Your task to perform on an android device: add a contact in the contacts app Image 0: 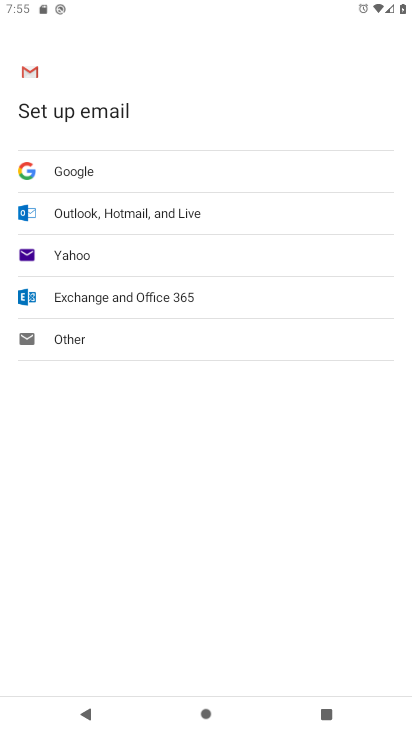
Step 0: press home button
Your task to perform on an android device: add a contact in the contacts app Image 1: 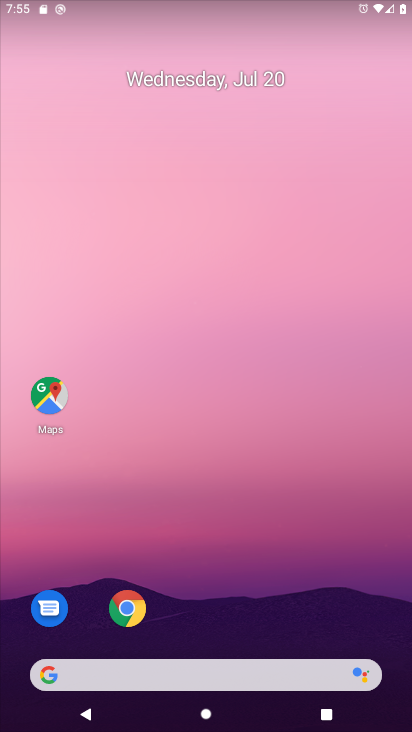
Step 1: drag from (214, 656) to (261, 274)
Your task to perform on an android device: add a contact in the contacts app Image 2: 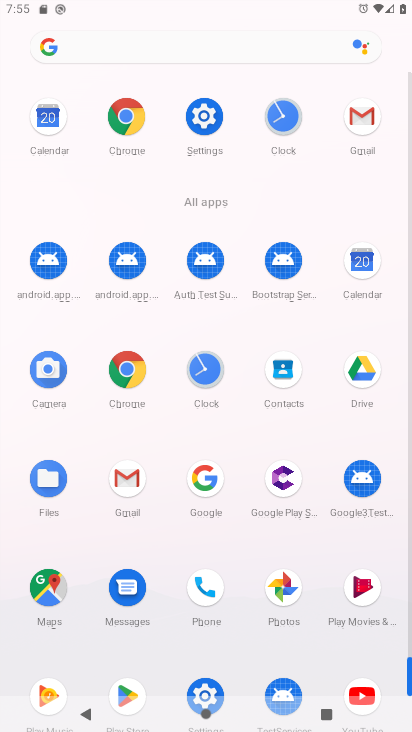
Step 2: click (203, 583)
Your task to perform on an android device: add a contact in the contacts app Image 3: 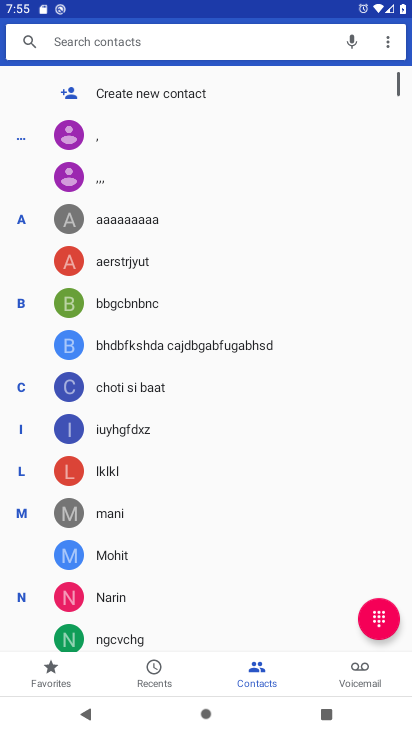
Step 3: click (173, 94)
Your task to perform on an android device: add a contact in the contacts app Image 4: 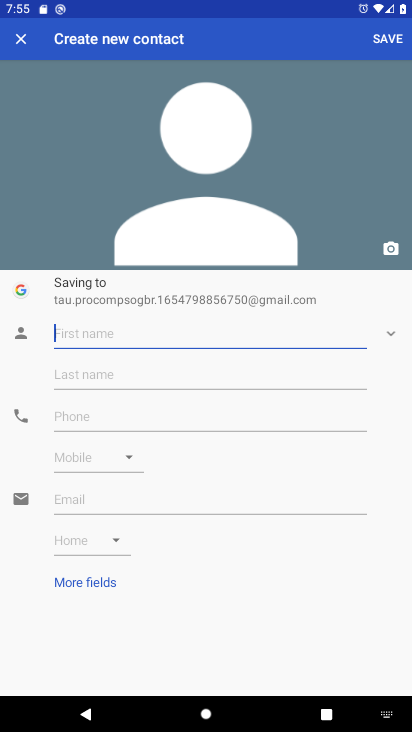
Step 4: click (145, 313)
Your task to perform on an android device: add a contact in the contacts app Image 5: 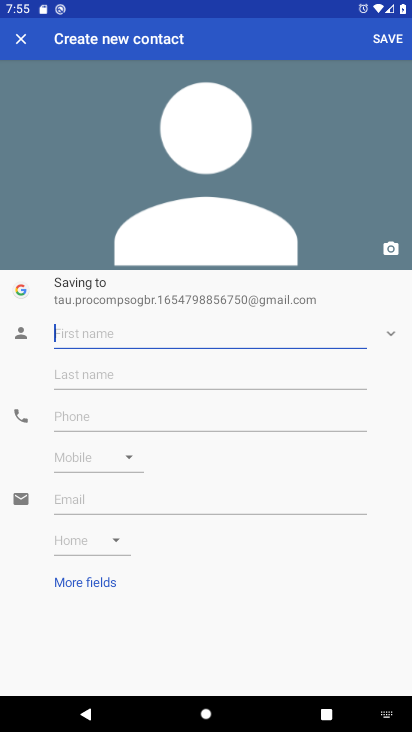
Step 5: type "jjjjjjjjjjjjjjjjjj "
Your task to perform on an android device: add a contact in the contacts app Image 6: 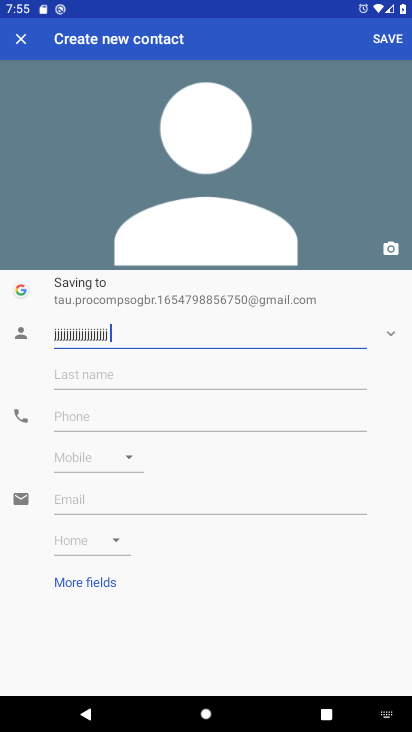
Step 6: click (87, 407)
Your task to perform on an android device: add a contact in the contacts app Image 7: 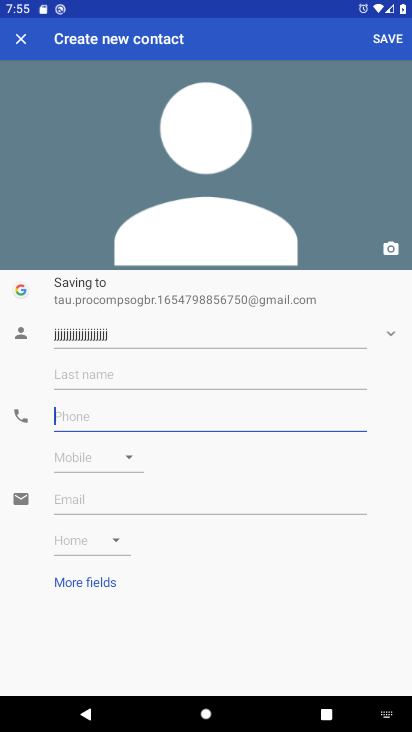
Step 7: type "777777777777777 "
Your task to perform on an android device: add a contact in the contacts app Image 8: 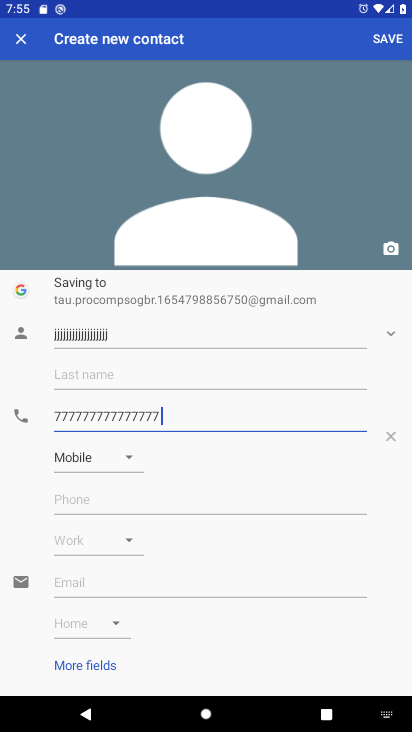
Step 8: click (386, 38)
Your task to perform on an android device: add a contact in the contacts app Image 9: 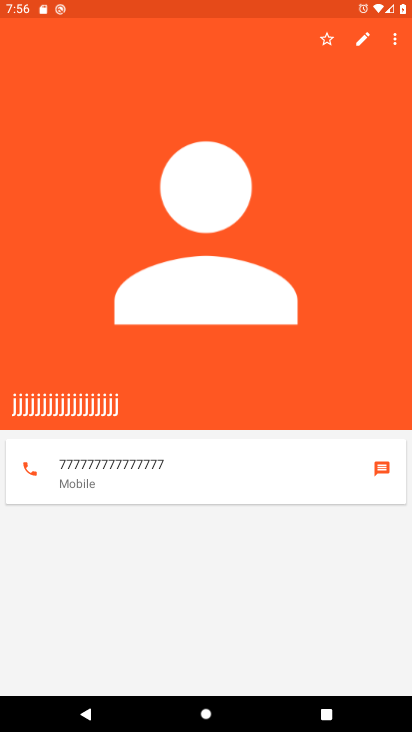
Step 9: task complete